Your task to perform on an android device: Go to internet settings Image 0: 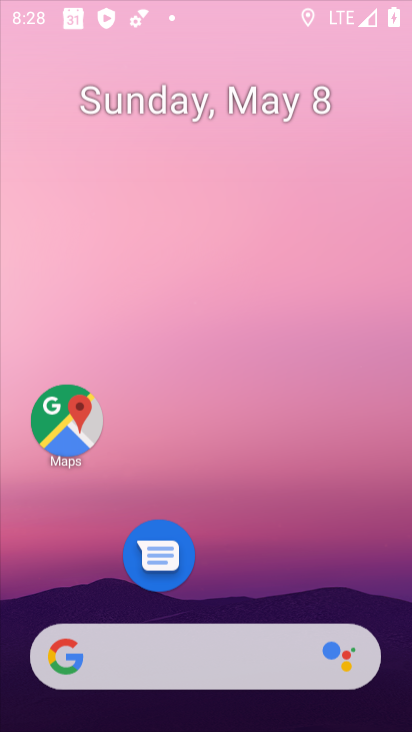
Step 0: click (351, 137)
Your task to perform on an android device: Go to internet settings Image 1: 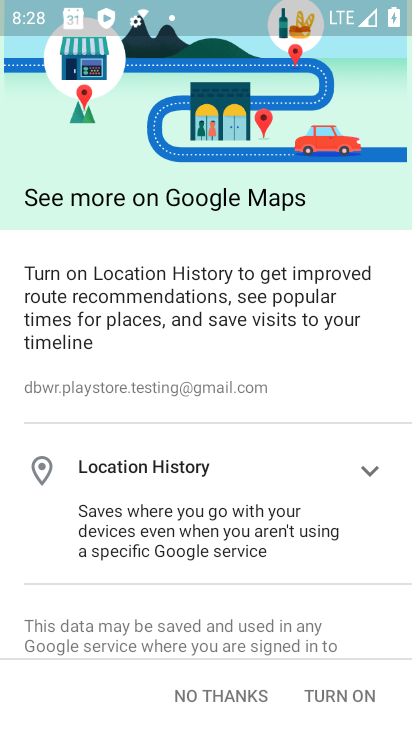
Step 1: press home button
Your task to perform on an android device: Go to internet settings Image 2: 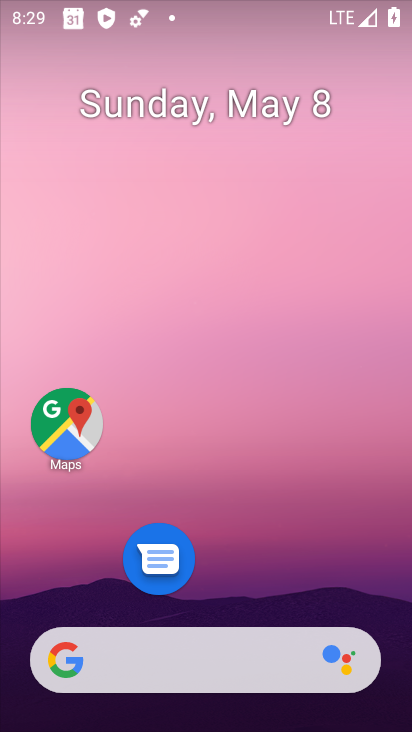
Step 2: drag from (258, 681) to (345, 133)
Your task to perform on an android device: Go to internet settings Image 3: 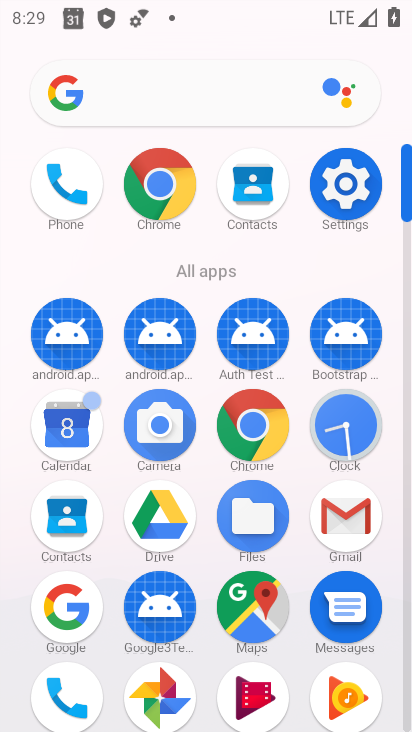
Step 3: drag from (303, 672) to (318, 308)
Your task to perform on an android device: Go to internet settings Image 4: 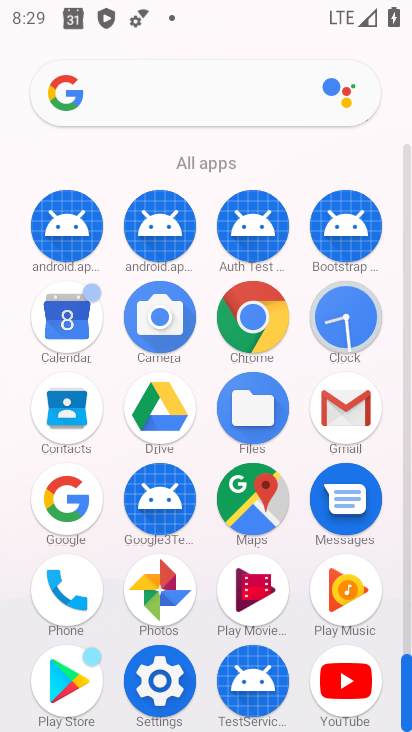
Step 4: click (161, 694)
Your task to perform on an android device: Go to internet settings Image 5: 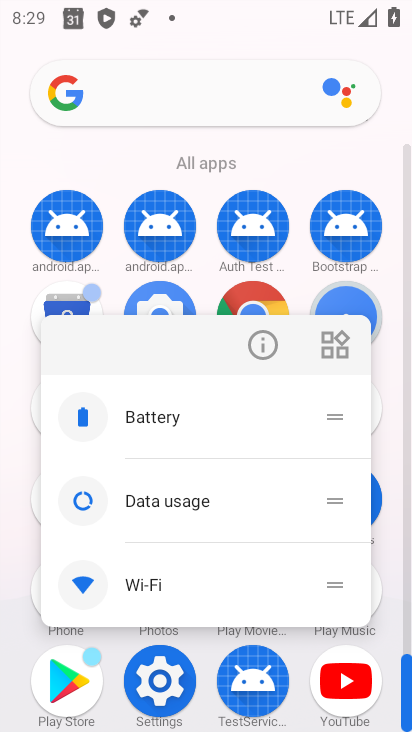
Step 5: click (167, 662)
Your task to perform on an android device: Go to internet settings Image 6: 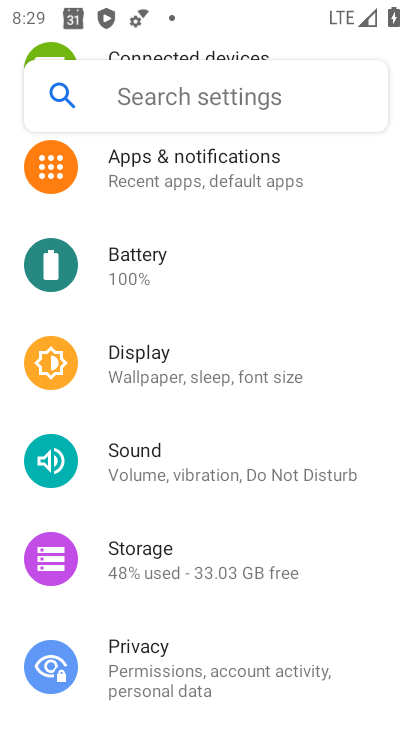
Step 6: drag from (262, 251) to (210, 720)
Your task to perform on an android device: Go to internet settings Image 7: 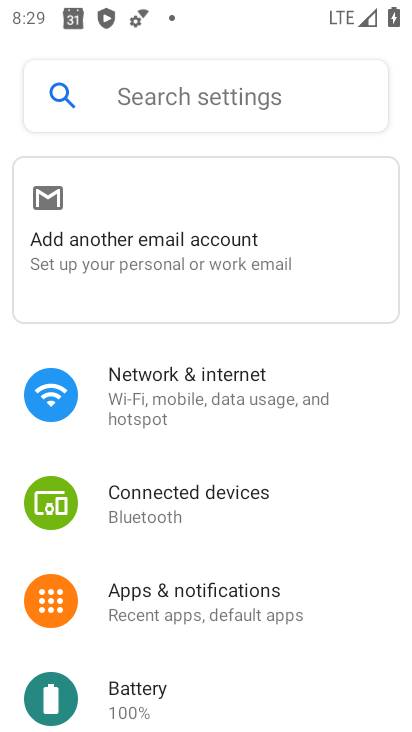
Step 7: click (208, 375)
Your task to perform on an android device: Go to internet settings Image 8: 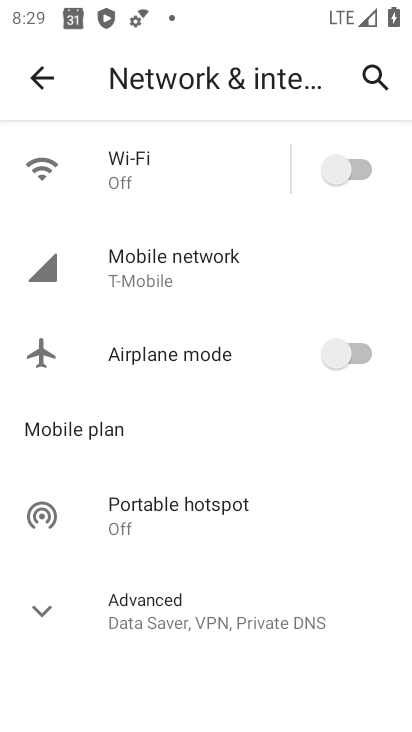
Step 8: click (193, 281)
Your task to perform on an android device: Go to internet settings Image 9: 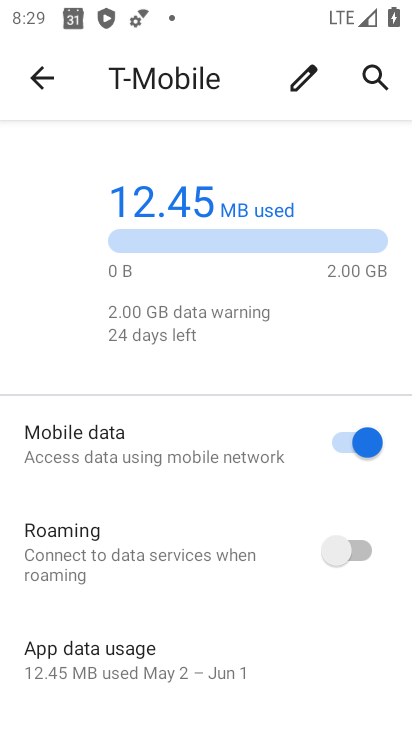
Step 9: task complete